Your task to perform on an android device: allow cookies in the chrome app Image 0: 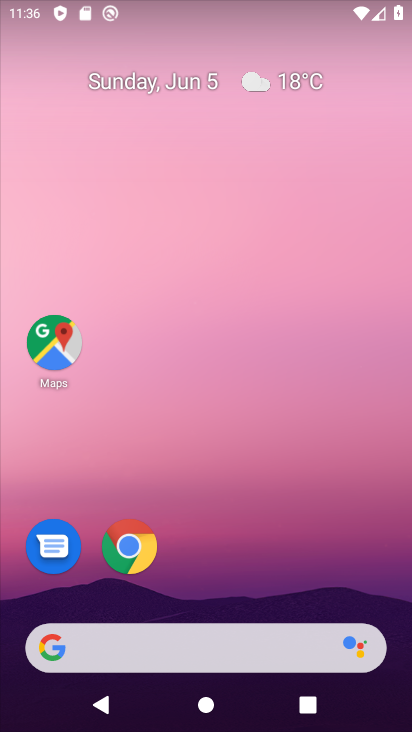
Step 0: drag from (225, 594) to (206, 442)
Your task to perform on an android device: allow cookies in the chrome app Image 1: 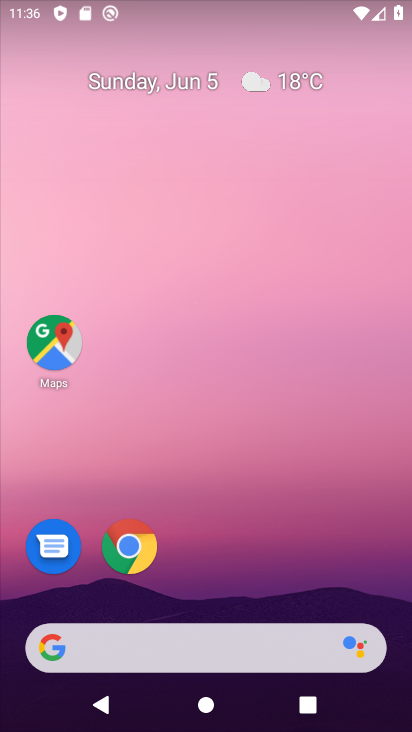
Step 1: click (122, 550)
Your task to perform on an android device: allow cookies in the chrome app Image 2: 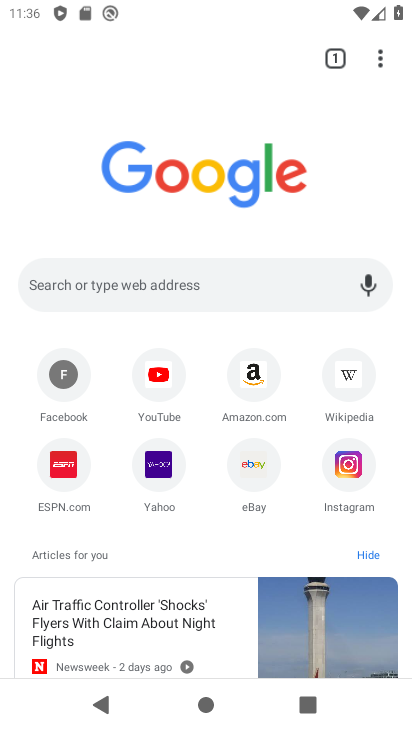
Step 2: click (382, 51)
Your task to perform on an android device: allow cookies in the chrome app Image 3: 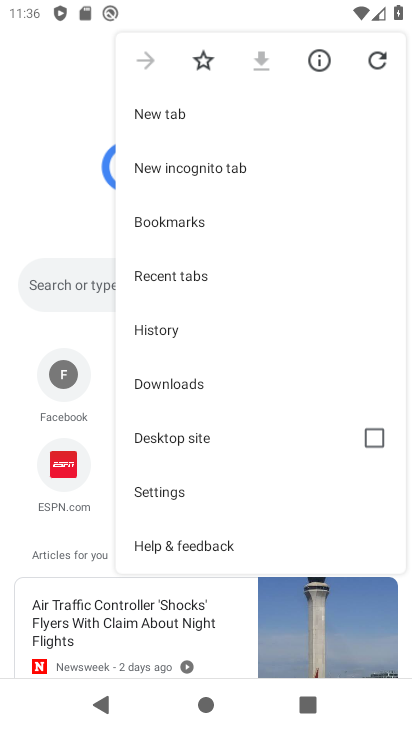
Step 3: click (183, 496)
Your task to perform on an android device: allow cookies in the chrome app Image 4: 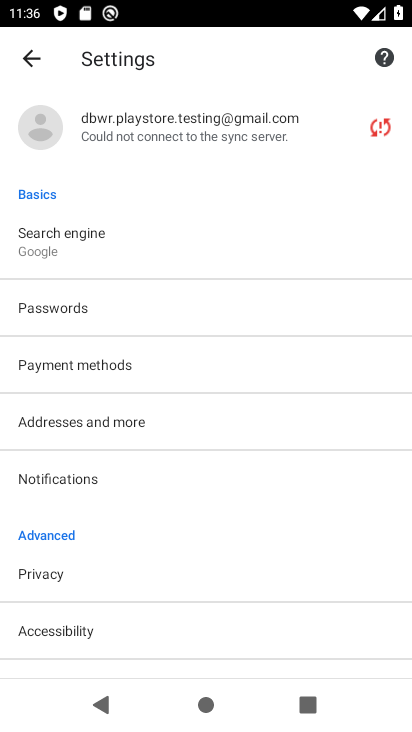
Step 4: drag from (147, 579) to (148, 382)
Your task to perform on an android device: allow cookies in the chrome app Image 5: 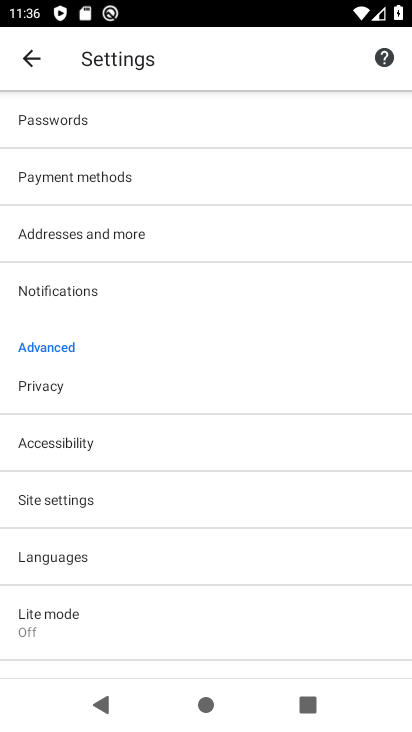
Step 5: drag from (184, 148) to (143, 497)
Your task to perform on an android device: allow cookies in the chrome app Image 6: 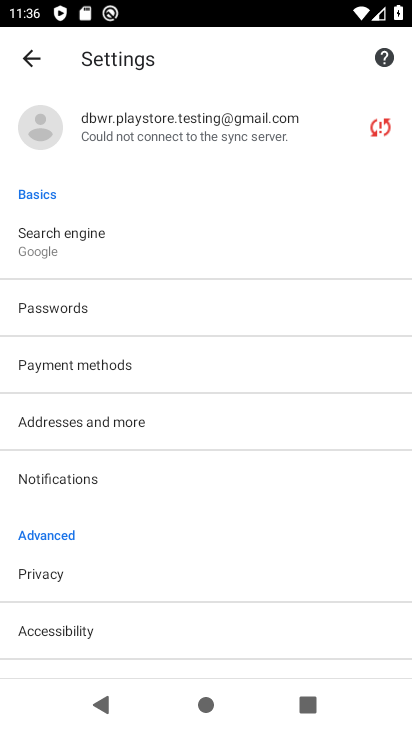
Step 6: drag from (113, 599) to (139, 409)
Your task to perform on an android device: allow cookies in the chrome app Image 7: 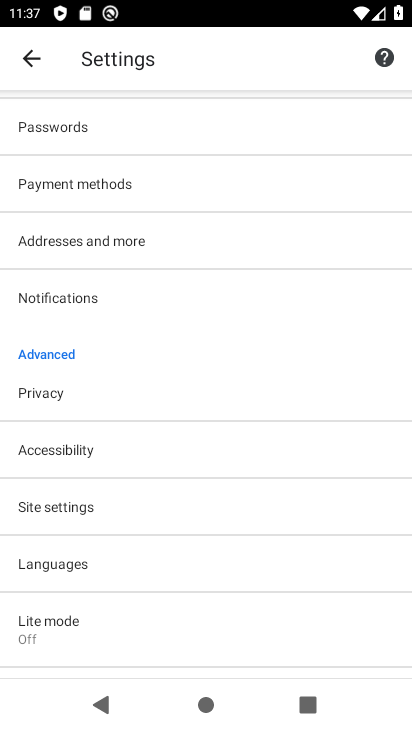
Step 7: click (116, 507)
Your task to perform on an android device: allow cookies in the chrome app Image 8: 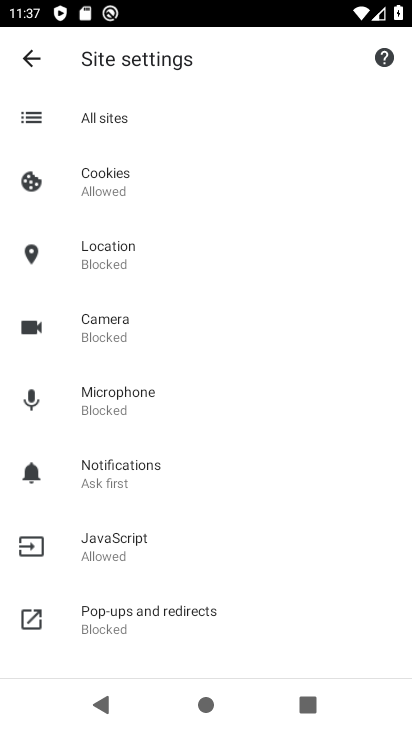
Step 8: click (135, 180)
Your task to perform on an android device: allow cookies in the chrome app Image 9: 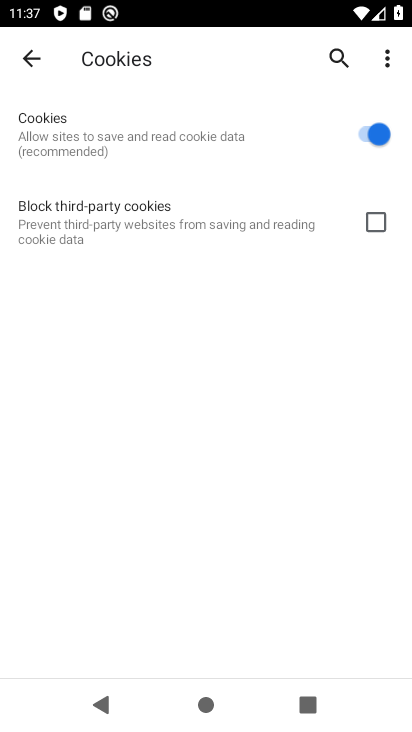
Step 9: task complete